Your task to perform on an android device: add a contact in the contacts app Image 0: 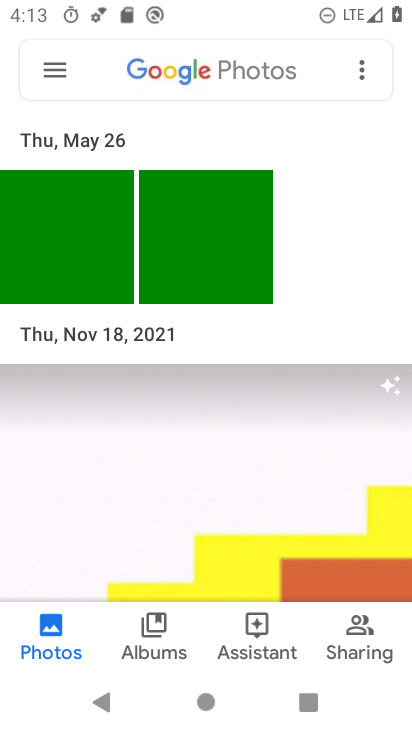
Step 0: press home button
Your task to perform on an android device: add a contact in the contacts app Image 1: 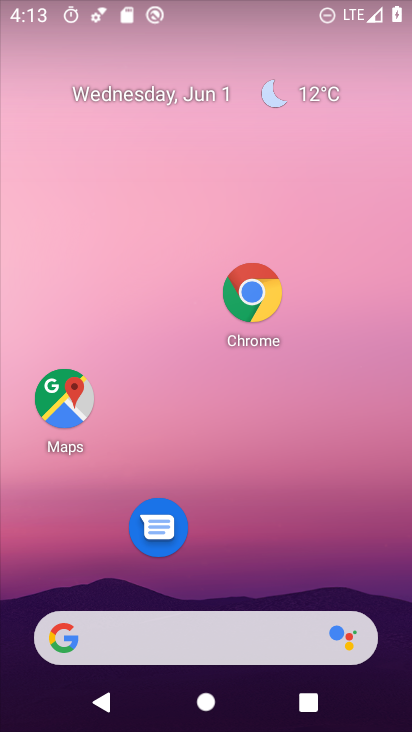
Step 1: drag from (228, 628) to (330, 10)
Your task to perform on an android device: add a contact in the contacts app Image 2: 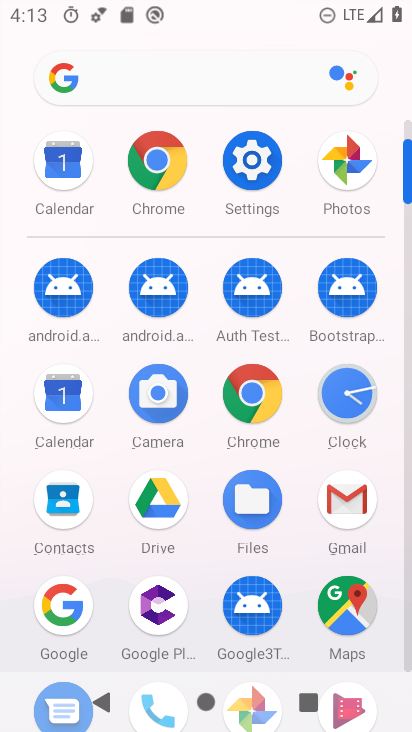
Step 2: click (72, 519)
Your task to perform on an android device: add a contact in the contacts app Image 3: 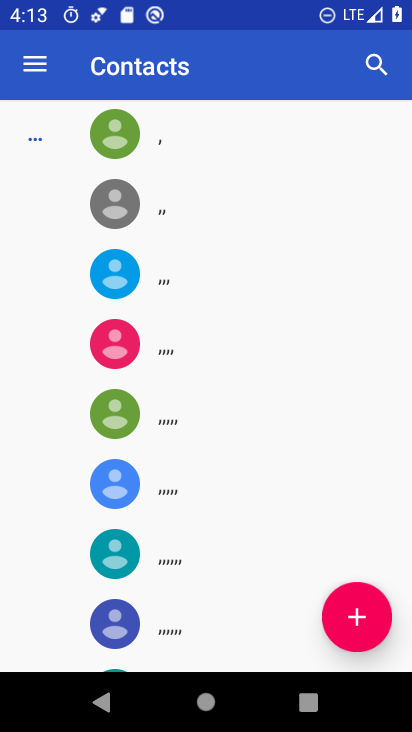
Step 3: click (354, 629)
Your task to perform on an android device: add a contact in the contacts app Image 4: 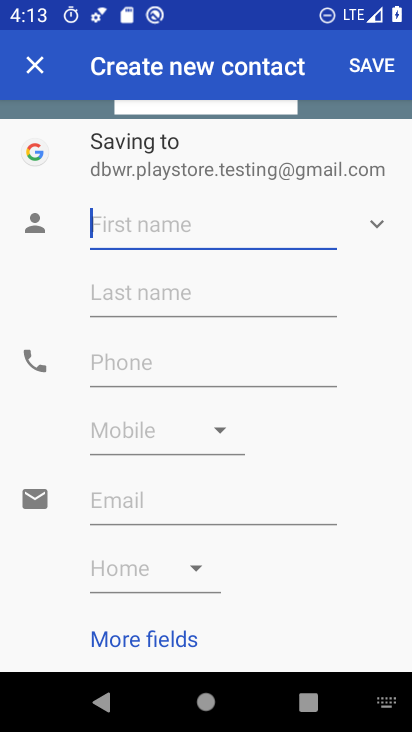
Step 4: type "vcjmghlktfdgh"
Your task to perform on an android device: add a contact in the contacts app Image 5: 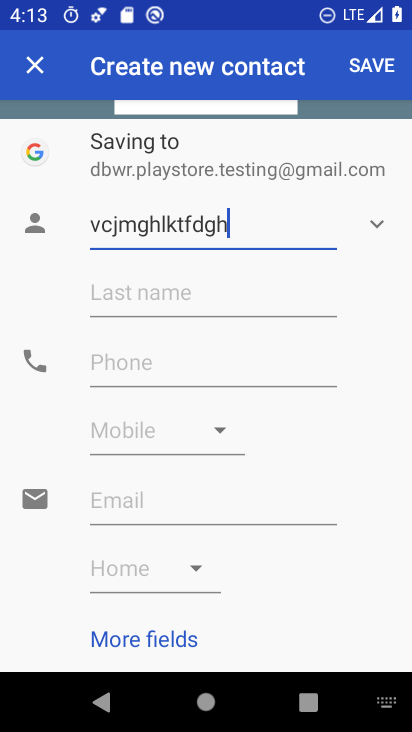
Step 5: click (165, 372)
Your task to perform on an android device: add a contact in the contacts app Image 6: 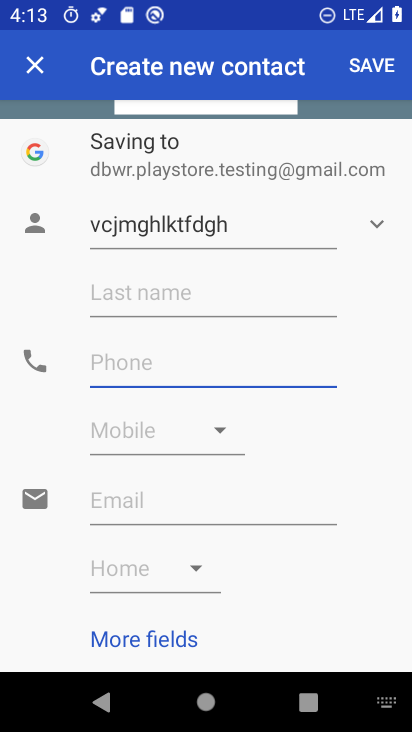
Step 6: type "976786780956t7"
Your task to perform on an android device: add a contact in the contacts app Image 7: 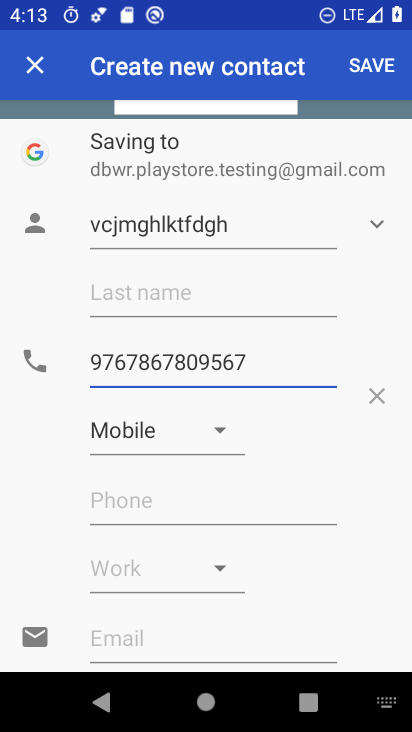
Step 7: click (363, 71)
Your task to perform on an android device: add a contact in the contacts app Image 8: 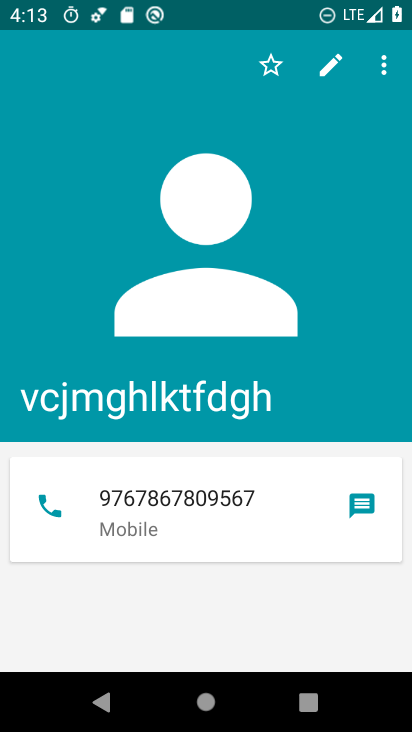
Step 8: task complete